Your task to perform on an android device: open sync settings in chrome Image 0: 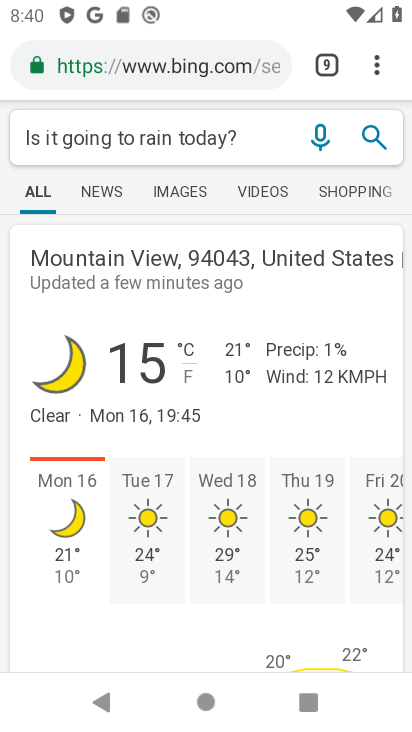
Step 0: click (371, 49)
Your task to perform on an android device: open sync settings in chrome Image 1: 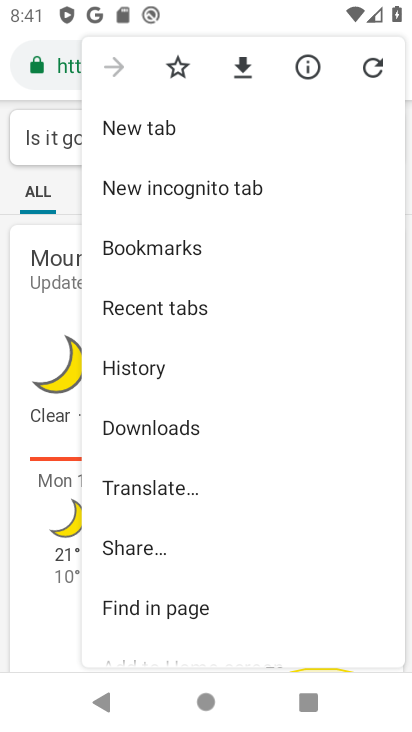
Step 1: drag from (224, 488) to (254, 159)
Your task to perform on an android device: open sync settings in chrome Image 2: 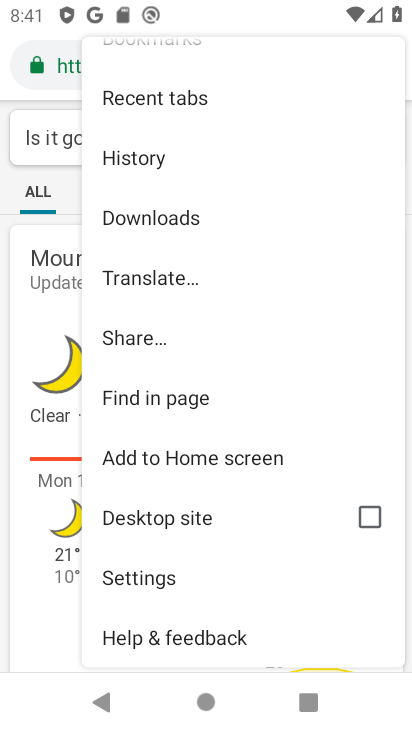
Step 2: click (129, 558)
Your task to perform on an android device: open sync settings in chrome Image 3: 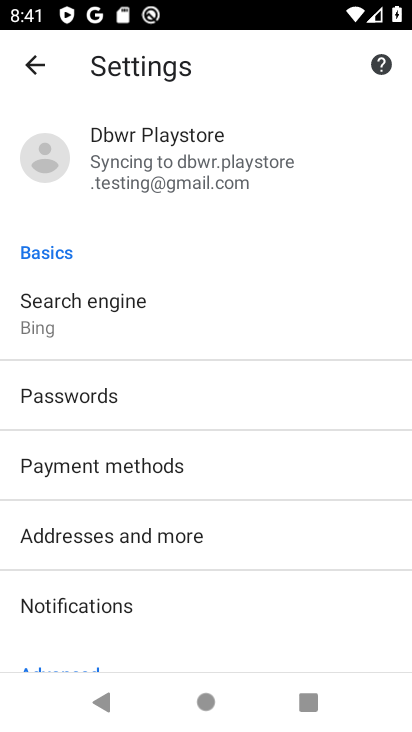
Step 3: click (182, 152)
Your task to perform on an android device: open sync settings in chrome Image 4: 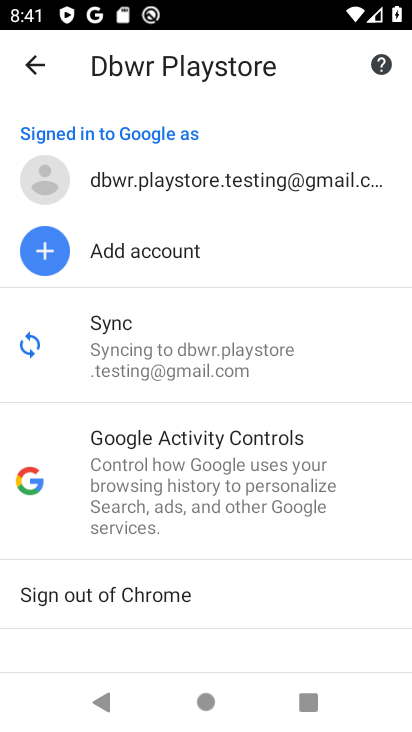
Step 4: task complete